Your task to perform on an android device: Open Google Chrome and open the bookmarks view Image 0: 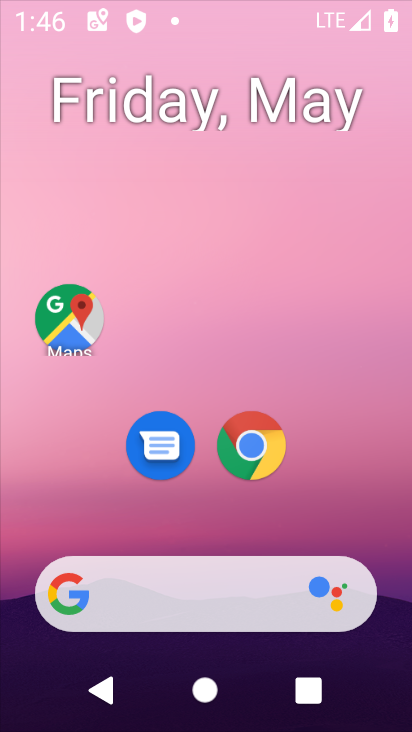
Step 0: press home button
Your task to perform on an android device: Open Google Chrome and open the bookmarks view Image 1: 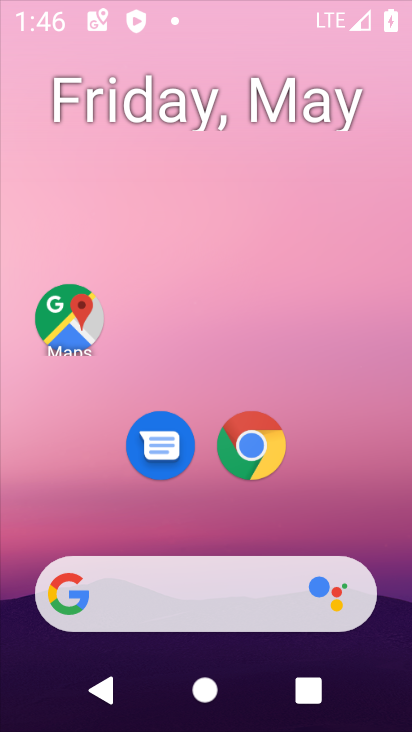
Step 1: click (208, 91)
Your task to perform on an android device: Open Google Chrome and open the bookmarks view Image 2: 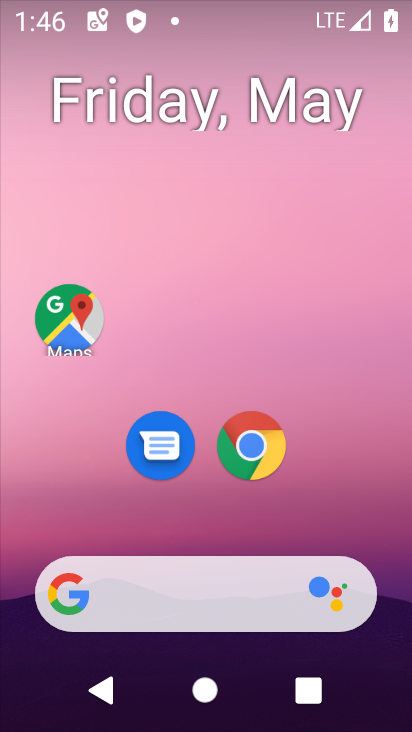
Step 2: drag from (207, 523) to (213, 87)
Your task to perform on an android device: Open Google Chrome and open the bookmarks view Image 3: 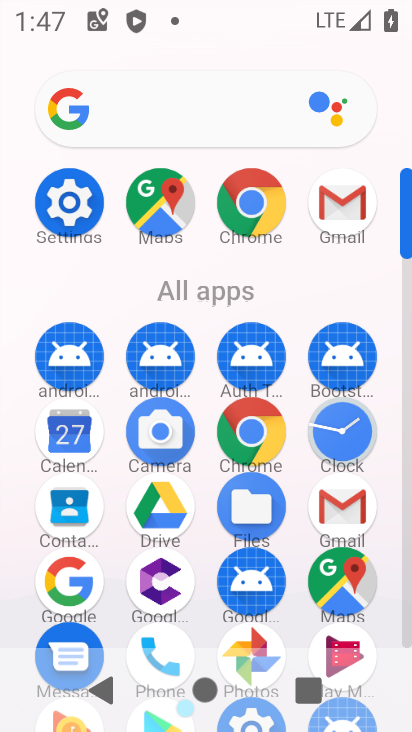
Step 3: click (252, 194)
Your task to perform on an android device: Open Google Chrome and open the bookmarks view Image 4: 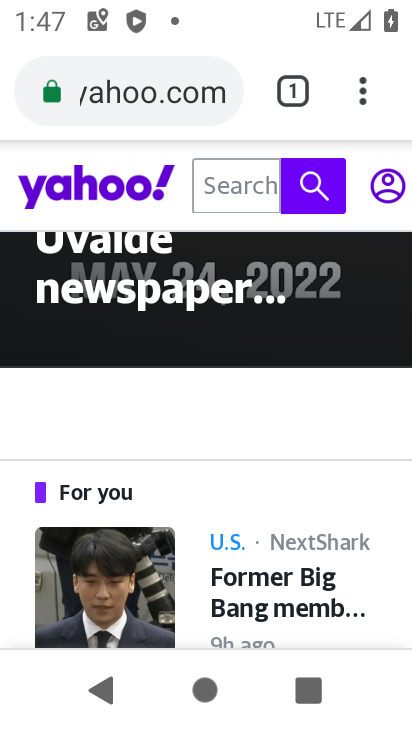
Step 4: click (364, 92)
Your task to perform on an android device: Open Google Chrome and open the bookmarks view Image 5: 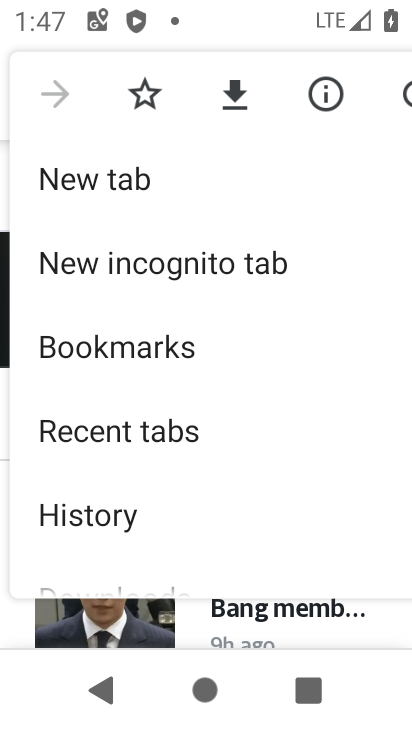
Step 5: click (202, 339)
Your task to perform on an android device: Open Google Chrome and open the bookmarks view Image 6: 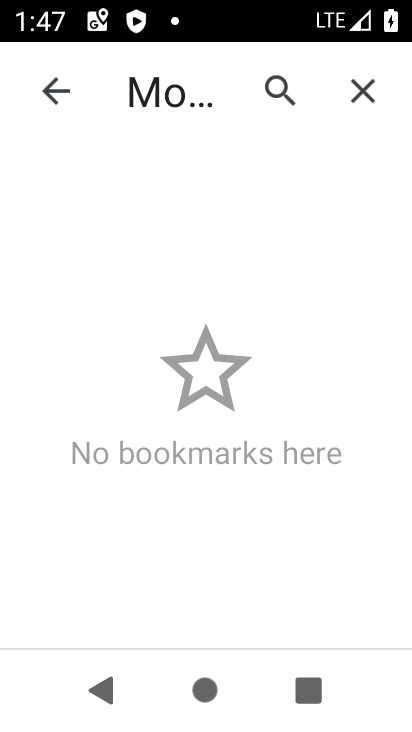
Step 6: task complete